Your task to perform on an android device: turn on sleep mode Image 0: 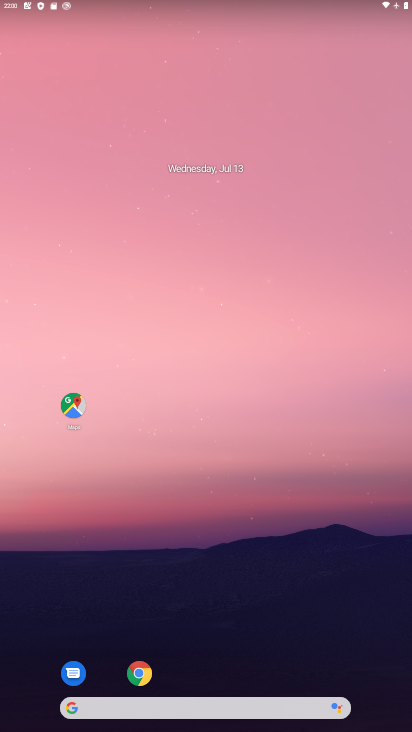
Step 0: drag from (230, 666) to (229, 237)
Your task to perform on an android device: turn on sleep mode Image 1: 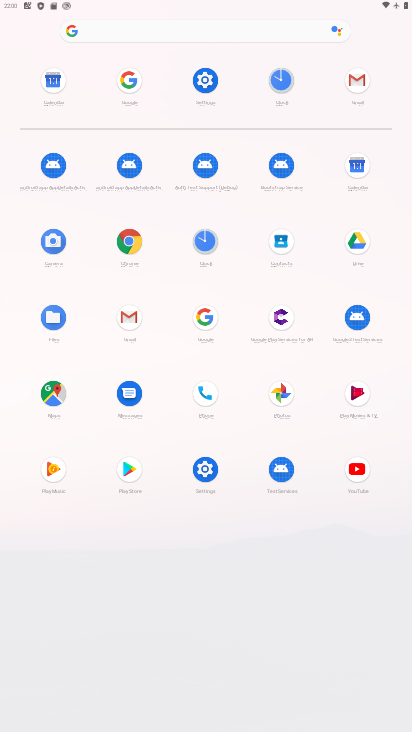
Step 1: click (203, 89)
Your task to perform on an android device: turn on sleep mode Image 2: 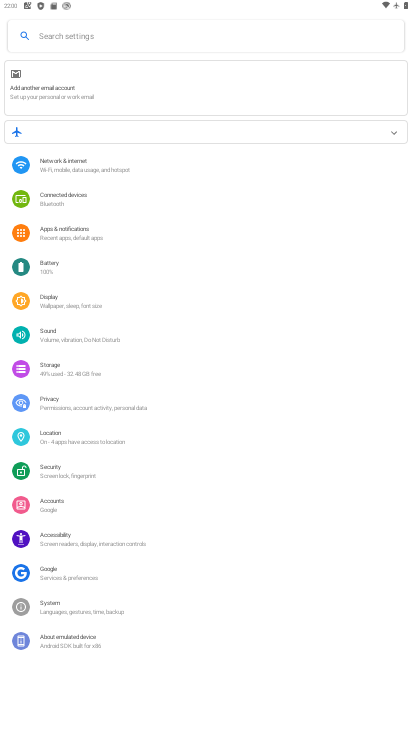
Step 2: click (41, 307)
Your task to perform on an android device: turn on sleep mode Image 3: 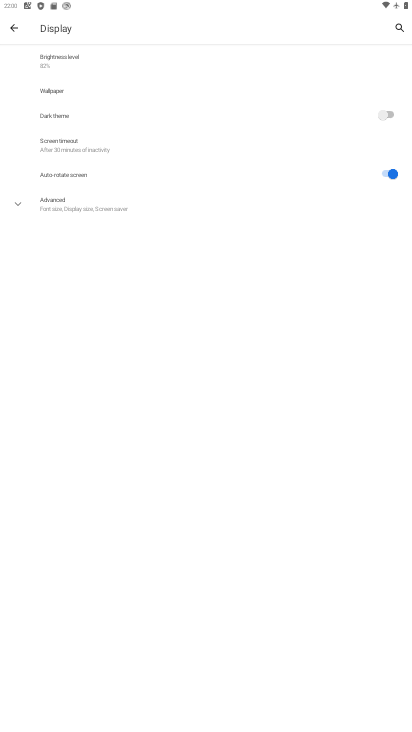
Step 3: click (52, 148)
Your task to perform on an android device: turn on sleep mode Image 4: 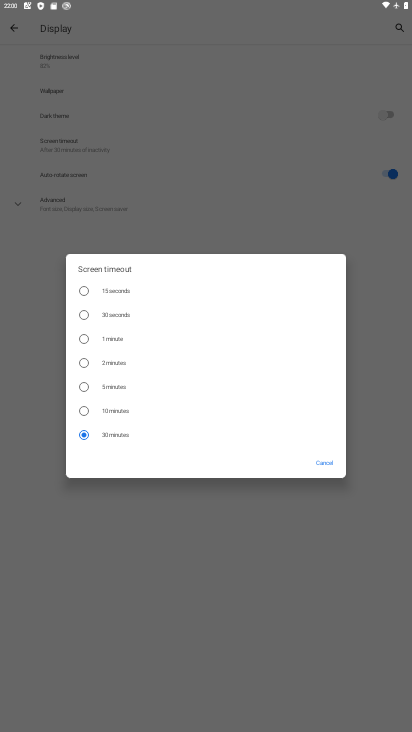
Step 4: click (129, 344)
Your task to perform on an android device: turn on sleep mode Image 5: 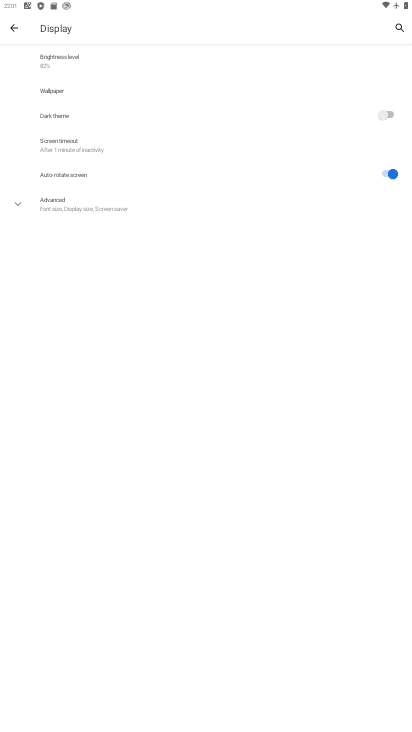
Step 5: task complete